Your task to perform on an android device: turn on showing notifications on the lock screen Image 0: 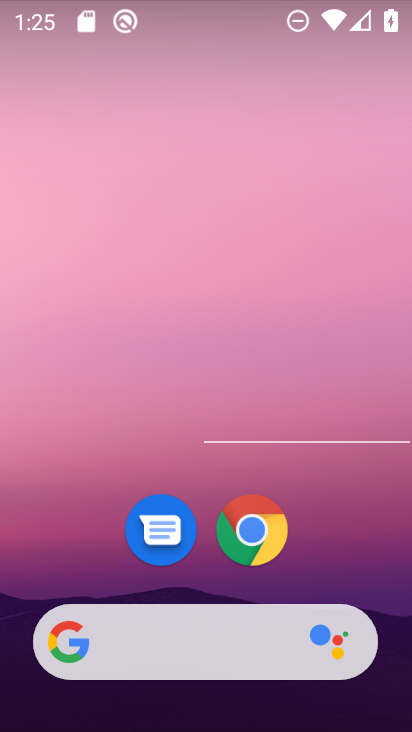
Step 0: drag from (343, 543) to (262, 27)
Your task to perform on an android device: turn on showing notifications on the lock screen Image 1: 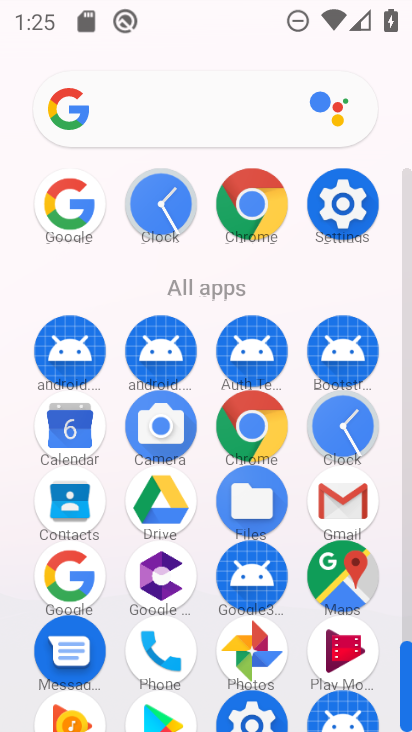
Step 1: click (344, 199)
Your task to perform on an android device: turn on showing notifications on the lock screen Image 2: 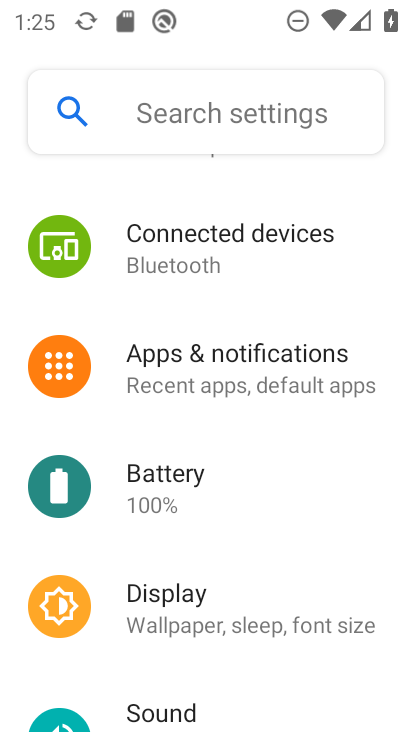
Step 2: click (263, 391)
Your task to perform on an android device: turn on showing notifications on the lock screen Image 3: 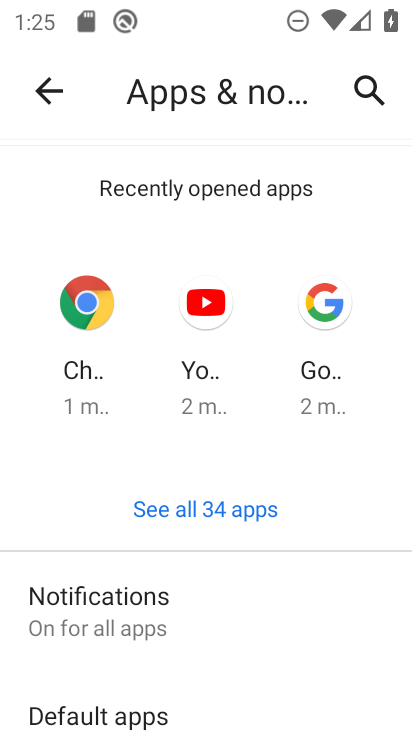
Step 3: click (150, 611)
Your task to perform on an android device: turn on showing notifications on the lock screen Image 4: 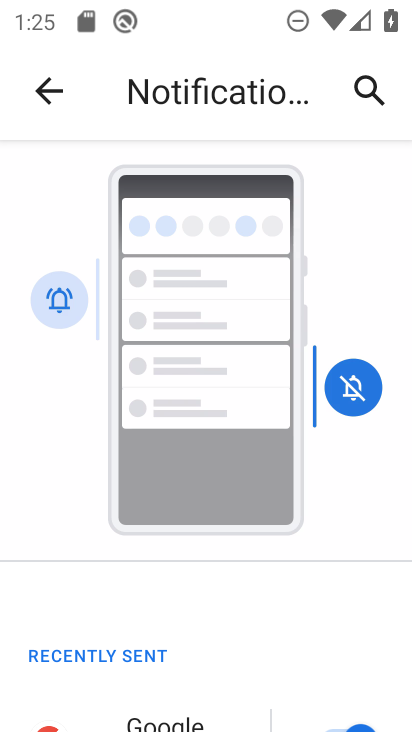
Step 4: drag from (176, 610) to (247, 294)
Your task to perform on an android device: turn on showing notifications on the lock screen Image 5: 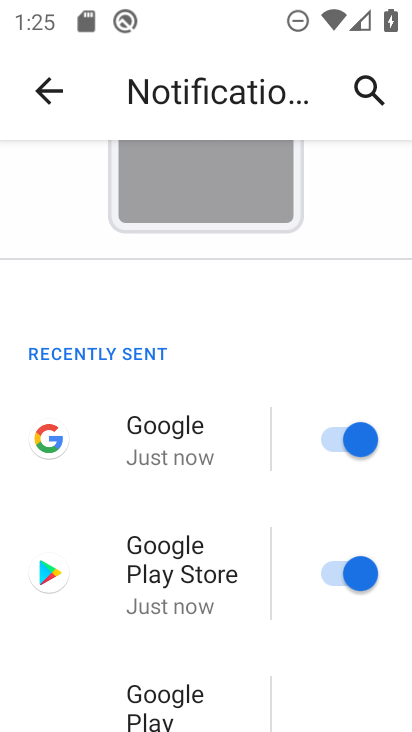
Step 5: drag from (164, 491) to (253, 303)
Your task to perform on an android device: turn on showing notifications on the lock screen Image 6: 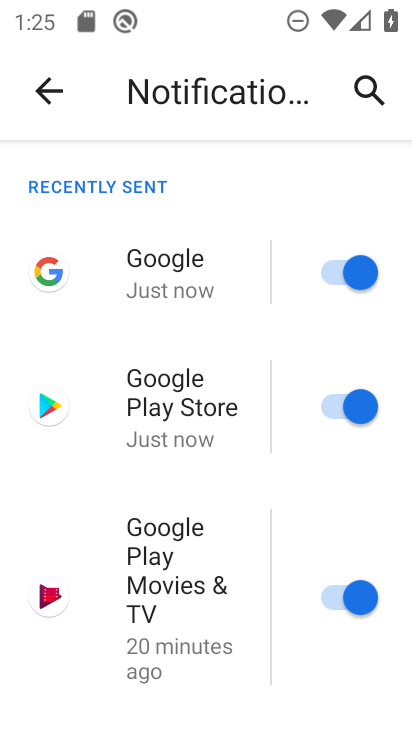
Step 6: drag from (184, 481) to (252, 288)
Your task to perform on an android device: turn on showing notifications on the lock screen Image 7: 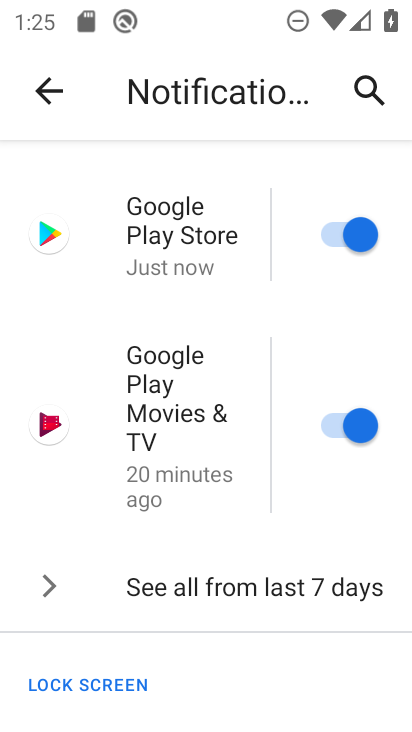
Step 7: drag from (179, 660) to (268, 432)
Your task to perform on an android device: turn on showing notifications on the lock screen Image 8: 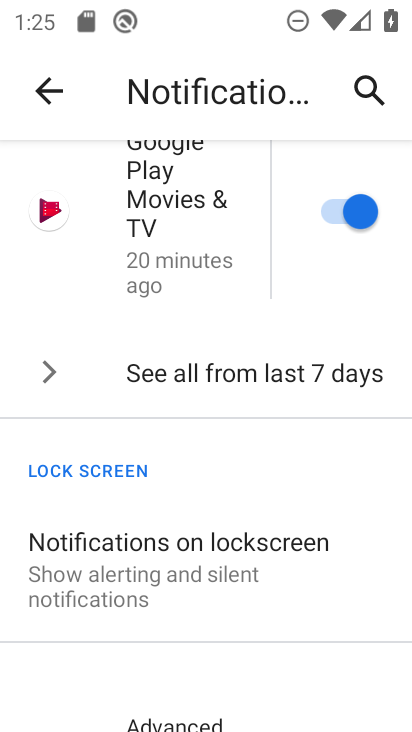
Step 8: click (225, 546)
Your task to perform on an android device: turn on showing notifications on the lock screen Image 9: 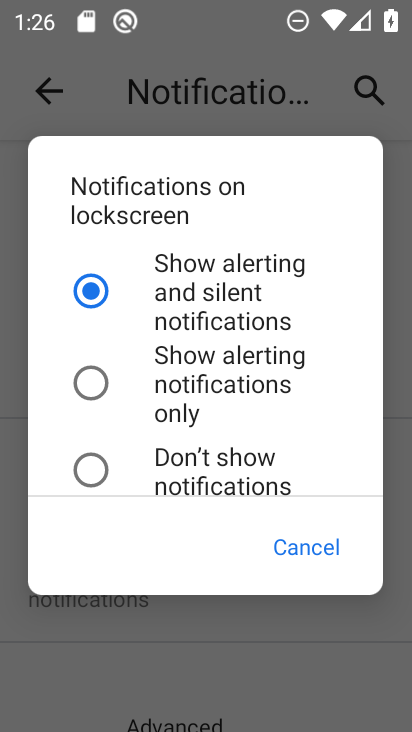
Step 9: click (97, 291)
Your task to perform on an android device: turn on showing notifications on the lock screen Image 10: 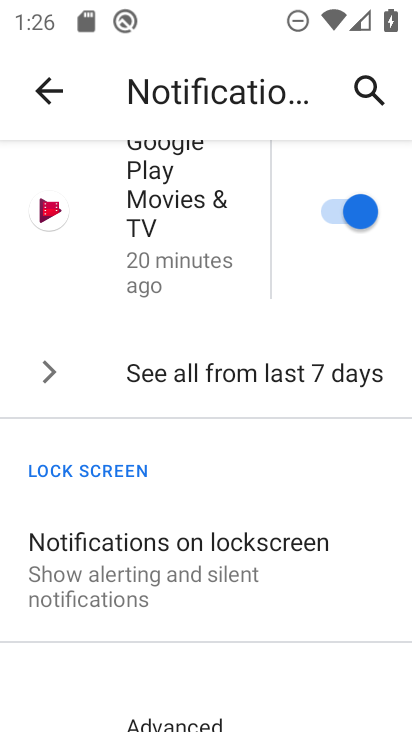
Step 10: task complete